Your task to perform on an android device: What's the weather? Image 0: 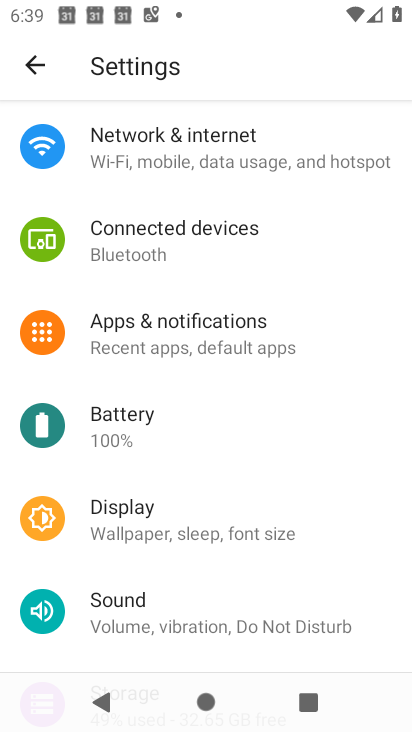
Step 0: press home button
Your task to perform on an android device: What's the weather? Image 1: 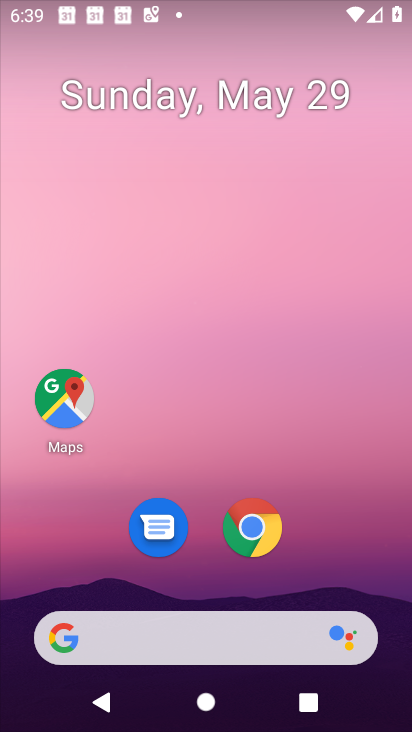
Step 1: drag from (353, 586) to (139, 15)
Your task to perform on an android device: What's the weather? Image 2: 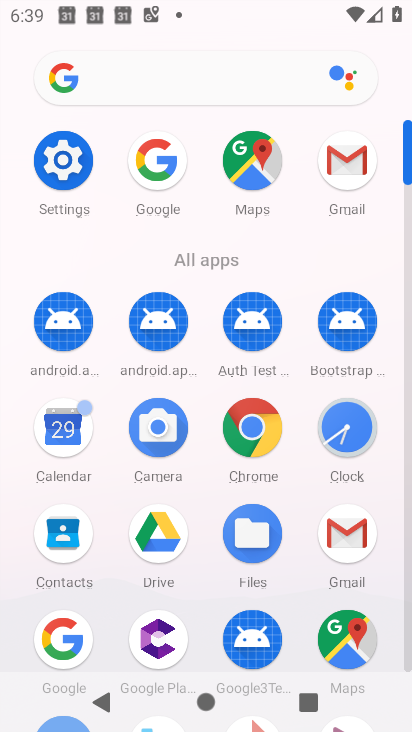
Step 2: click (49, 640)
Your task to perform on an android device: What's the weather? Image 3: 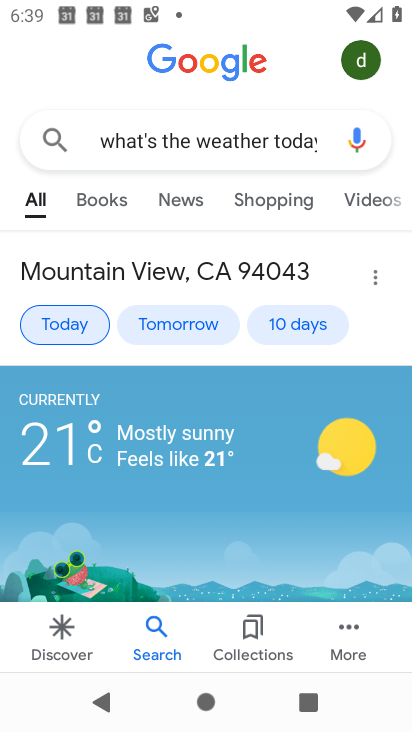
Step 3: press back button
Your task to perform on an android device: What's the weather? Image 4: 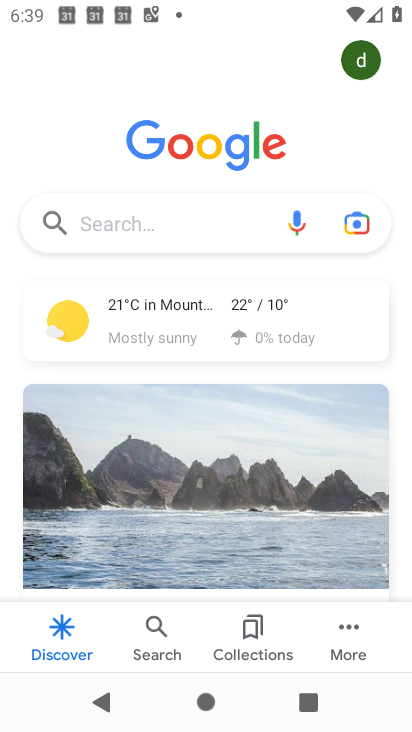
Step 4: click (126, 238)
Your task to perform on an android device: What's the weather? Image 5: 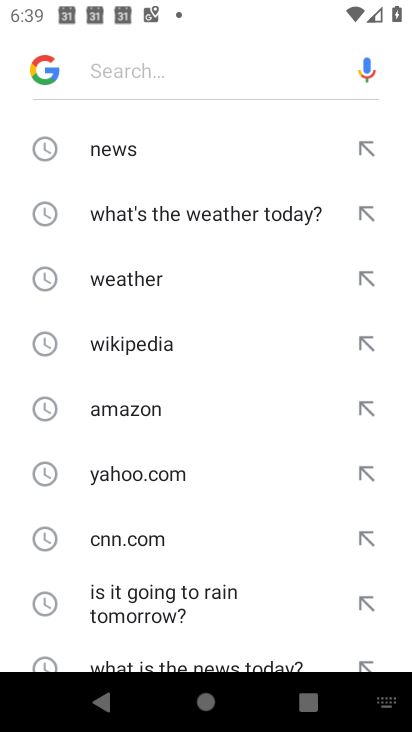
Step 5: drag from (139, 582) to (244, 315)
Your task to perform on an android device: What's the weather? Image 6: 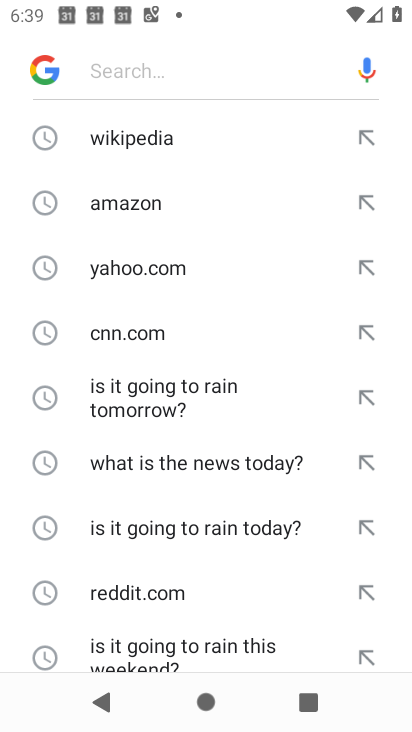
Step 6: drag from (102, 601) to (203, 174)
Your task to perform on an android device: What's the weather? Image 7: 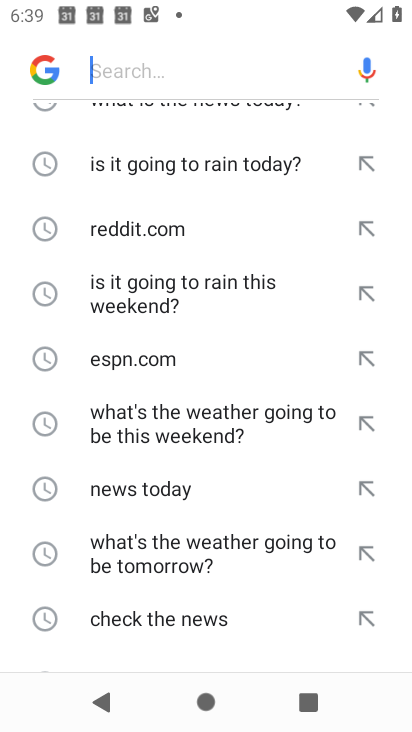
Step 7: drag from (178, 569) to (237, 352)
Your task to perform on an android device: What's the weather? Image 8: 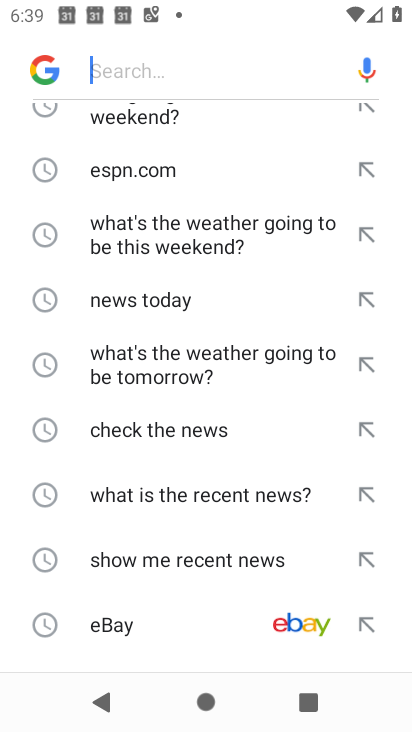
Step 8: drag from (135, 557) to (189, 224)
Your task to perform on an android device: What's the weather? Image 9: 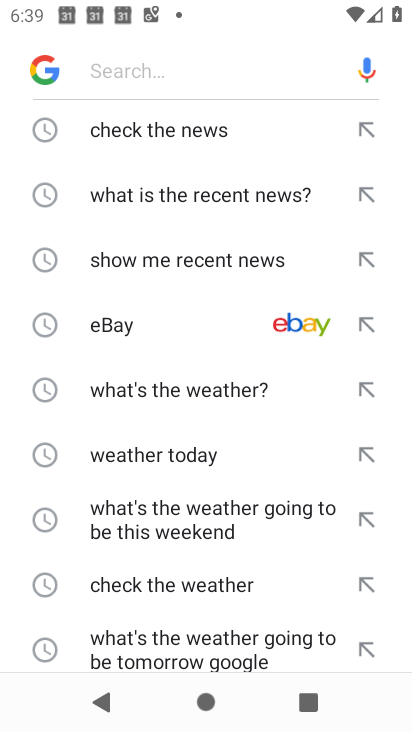
Step 9: drag from (180, 587) to (225, 384)
Your task to perform on an android device: What's the weather? Image 10: 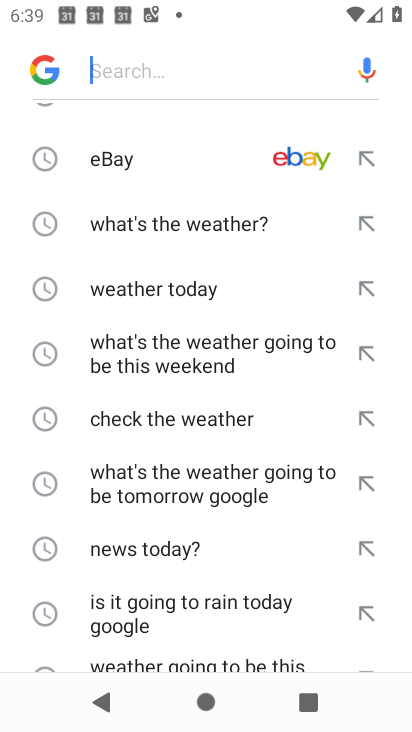
Step 10: drag from (151, 604) to (188, 307)
Your task to perform on an android device: What's the weather? Image 11: 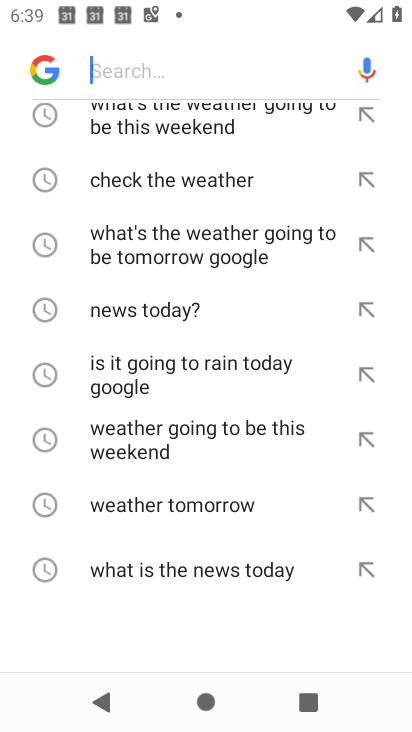
Step 11: drag from (165, 260) to (146, 517)
Your task to perform on an android device: What's the weather? Image 12: 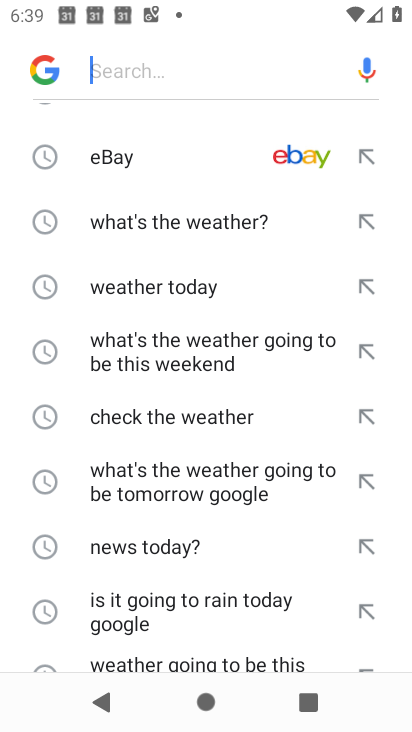
Step 12: drag from (163, 147) to (203, 731)
Your task to perform on an android device: What's the weather? Image 13: 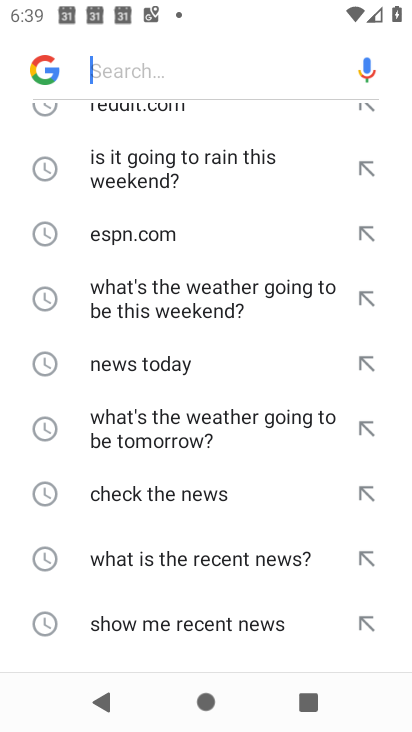
Step 13: drag from (178, 179) to (140, 483)
Your task to perform on an android device: What's the weather? Image 14: 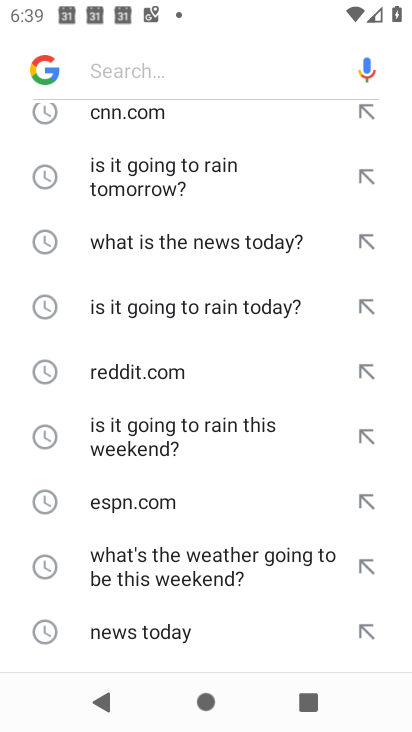
Step 14: drag from (101, 194) to (155, 597)
Your task to perform on an android device: What's the weather? Image 15: 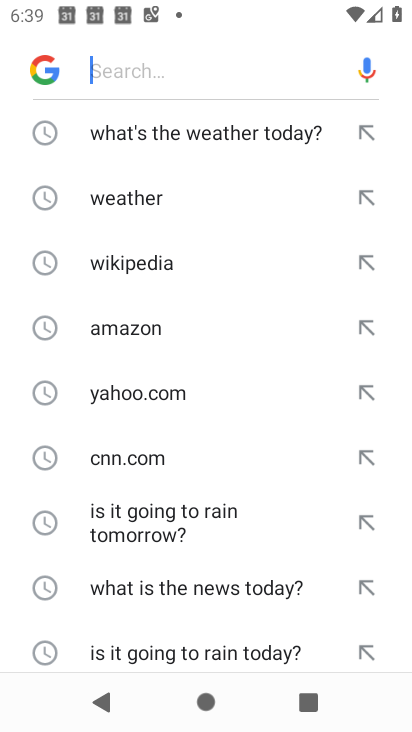
Step 15: click (142, 199)
Your task to perform on an android device: What's the weather? Image 16: 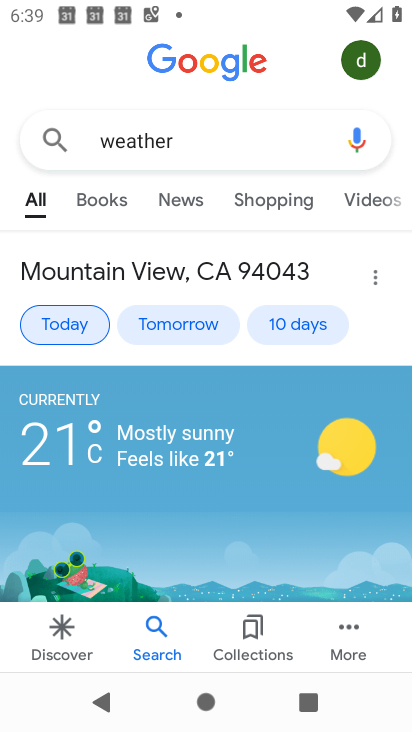
Step 16: task complete